Your task to perform on an android device: Show the shopping cart on walmart. Add "razer blade" to the cart on walmart Image 0: 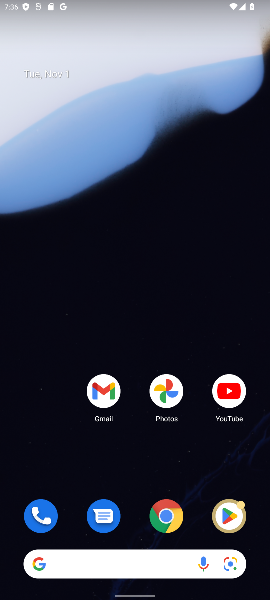
Step 0: drag from (135, 475) to (186, 13)
Your task to perform on an android device: Show the shopping cart on walmart. Add "razer blade" to the cart on walmart Image 1: 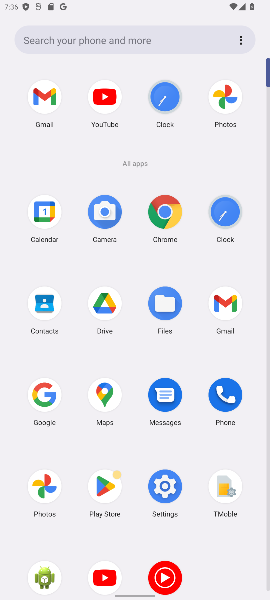
Step 1: click (166, 211)
Your task to perform on an android device: Show the shopping cart on walmart. Add "razer blade" to the cart on walmart Image 2: 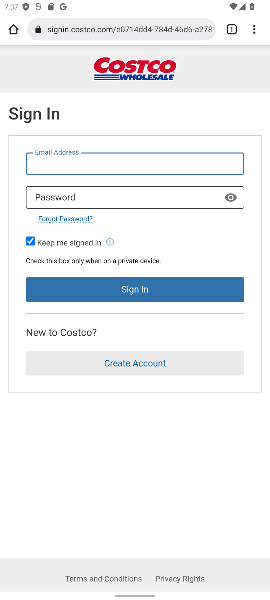
Step 2: click (75, 30)
Your task to perform on an android device: Show the shopping cart on walmart. Add "razer blade" to the cart on walmart Image 3: 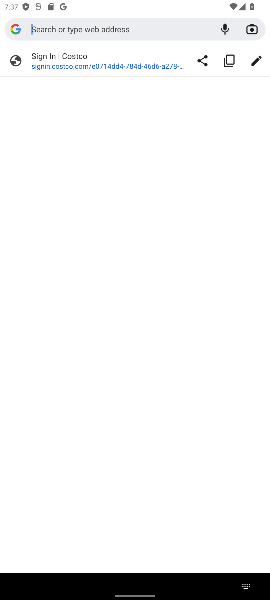
Step 3: type "walmart"
Your task to perform on an android device: Show the shopping cart on walmart. Add "razer blade" to the cart on walmart Image 4: 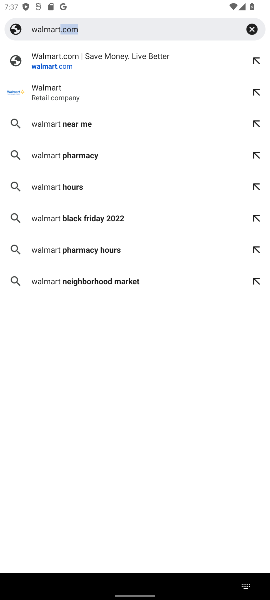
Step 4: click (79, 65)
Your task to perform on an android device: Show the shopping cart on walmart. Add "razer blade" to the cart on walmart Image 5: 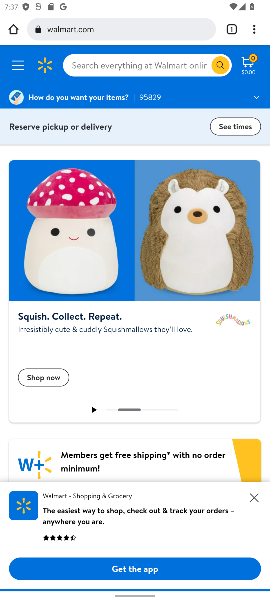
Step 5: click (86, 61)
Your task to perform on an android device: Show the shopping cart on walmart. Add "razer blade" to the cart on walmart Image 6: 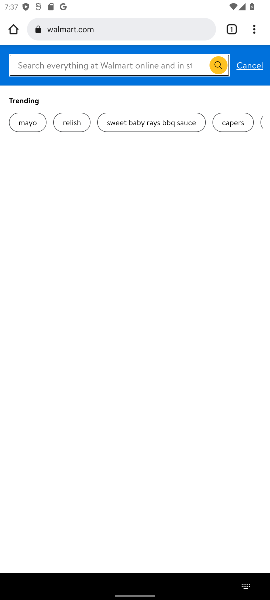
Step 6: click (51, 57)
Your task to perform on an android device: Show the shopping cart on walmart. Add "razer blade" to the cart on walmart Image 7: 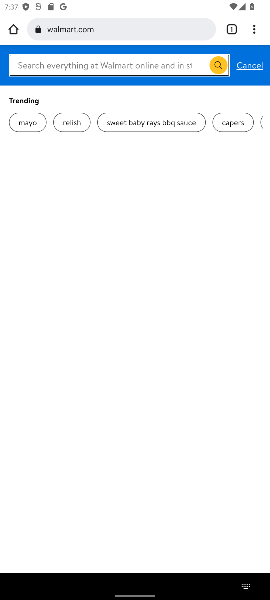
Step 7: type "razer blade"
Your task to perform on an android device: Show the shopping cart on walmart. Add "razer blade" to the cart on walmart Image 8: 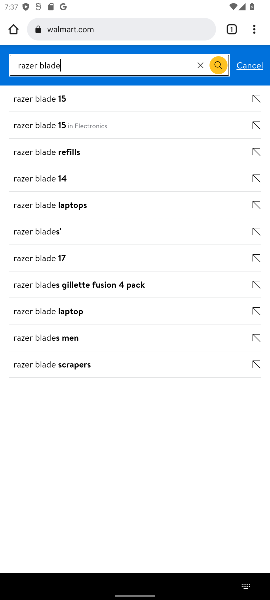
Step 8: click (64, 235)
Your task to perform on an android device: Show the shopping cart on walmart. Add "razer blade" to the cart on walmart Image 9: 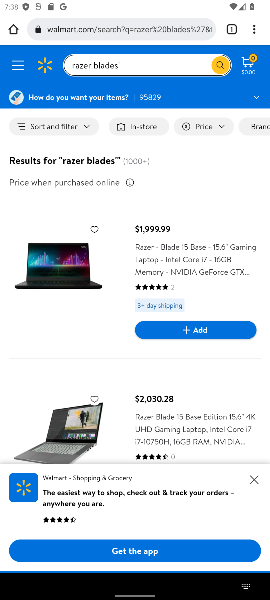
Step 9: click (163, 257)
Your task to perform on an android device: Show the shopping cart on walmart. Add "razer blade" to the cart on walmart Image 10: 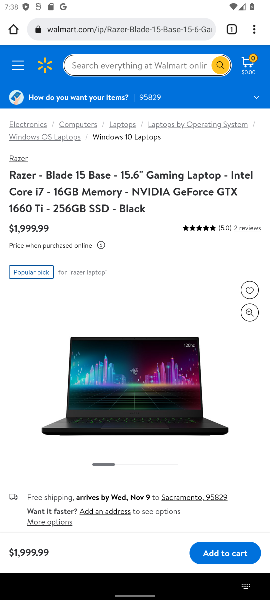
Step 10: drag from (141, 495) to (152, 142)
Your task to perform on an android device: Show the shopping cart on walmart. Add "razer blade" to the cart on walmart Image 11: 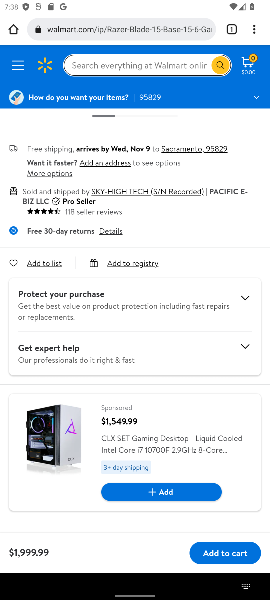
Step 11: drag from (154, 392) to (146, 164)
Your task to perform on an android device: Show the shopping cart on walmart. Add "razer blade" to the cart on walmart Image 12: 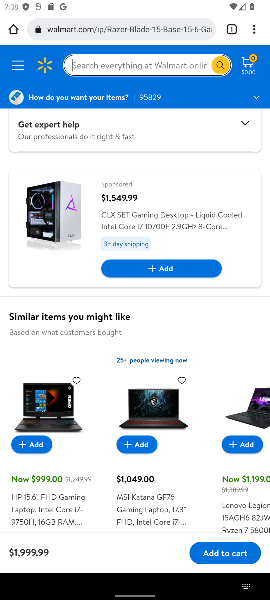
Step 12: drag from (150, 289) to (165, 468)
Your task to perform on an android device: Show the shopping cart on walmart. Add "razer blade" to the cart on walmart Image 13: 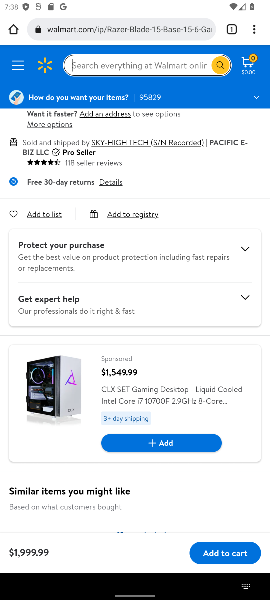
Step 13: drag from (182, 258) to (193, 483)
Your task to perform on an android device: Show the shopping cart on walmart. Add "razer blade" to the cart on walmart Image 14: 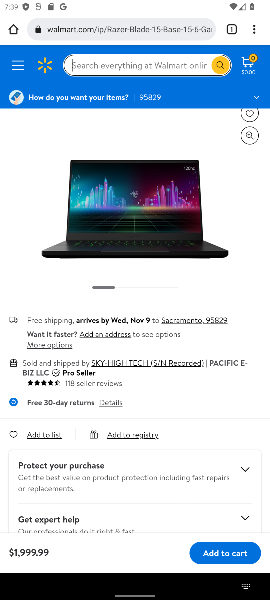
Step 14: drag from (144, 188) to (145, 478)
Your task to perform on an android device: Show the shopping cart on walmart. Add "razer blade" to the cart on walmart Image 15: 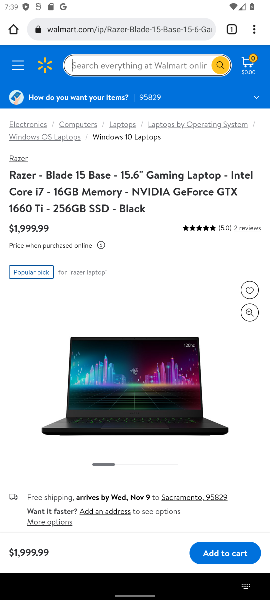
Step 15: drag from (145, 482) to (155, 121)
Your task to perform on an android device: Show the shopping cart on walmart. Add "razer blade" to the cart on walmart Image 16: 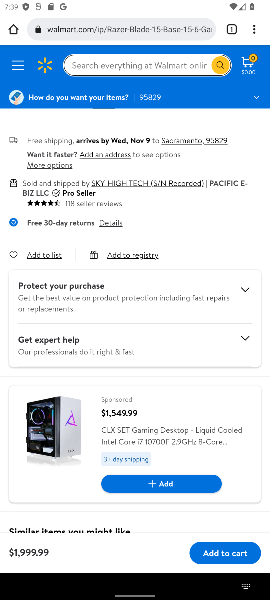
Step 16: drag from (149, 368) to (154, 103)
Your task to perform on an android device: Show the shopping cart on walmart. Add "razer blade" to the cart on walmart Image 17: 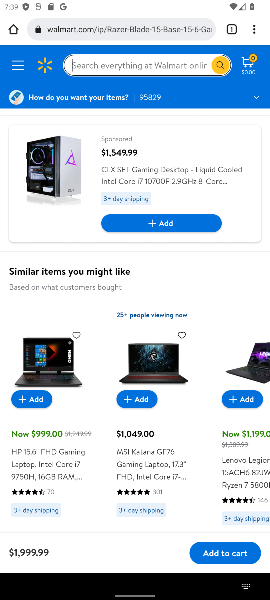
Step 17: drag from (118, 290) to (141, 86)
Your task to perform on an android device: Show the shopping cart on walmart. Add "razer blade" to the cart on walmart Image 18: 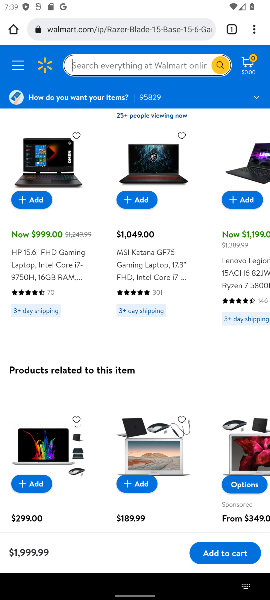
Step 18: drag from (177, 496) to (195, 82)
Your task to perform on an android device: Show the shopping cart on walmart. Add "razer blade" to the cart on walmart Image 19: 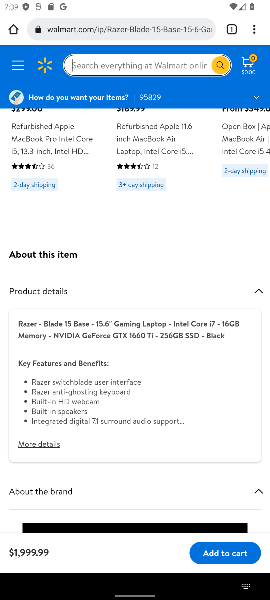
Step 19: drag from (150, 386) to (162, 114)
Your task to perform on an android device: Show the shopping cart on walmart. Add "razer blade" to the cart on walmart Image 20: 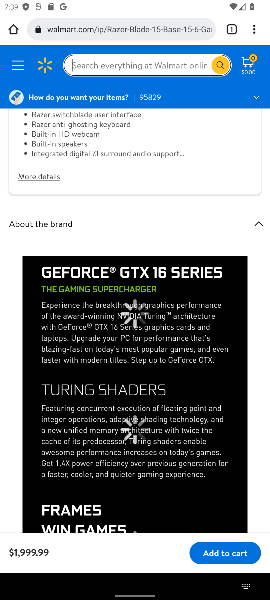
Step 20: drag from (138, 173) to (134, 588)
Your task to perform on an android device: Show the shopping cart on walmart. Add "razer blade" to the cart on walmart Image 21: 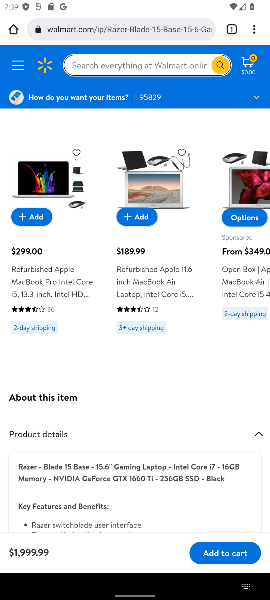
Step 21: drag from (123, 178) to (123, 538)
Your task to perform on an android device: Show the shopping cart on walmart. Add "razer blade" to the cart on walmart Image 22: 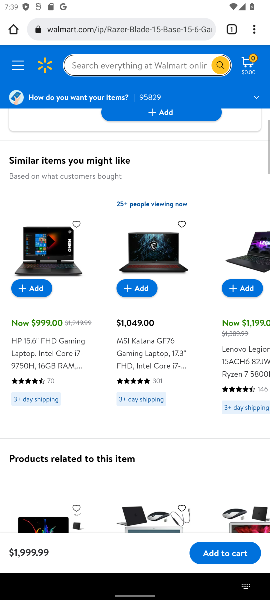
Step 22: click (223, 553)
Your task to perform on an android device: Show the shopping cart on walmart. Add "razer blade" to the cart on walmart Image 23: 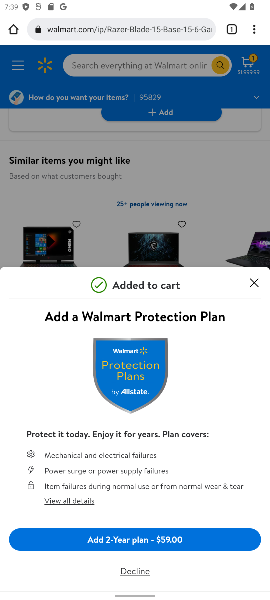
Step 23: click (258, 280)
Your task to perform on an android device: Show the shopping cart on walmart. Add "razer blade" to the cart on walmart Image 24: 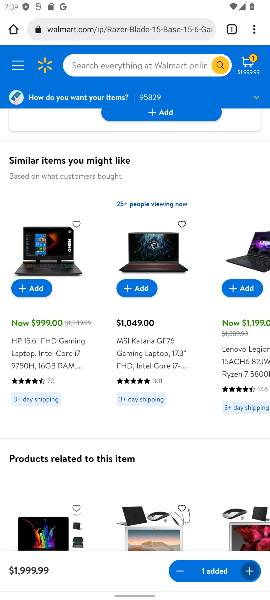
Step 24: click (248, 66)
Your task to perform on an android device: Show the shopping cart on walmart. Add "razer blade" to the cart on walmart Image 25: 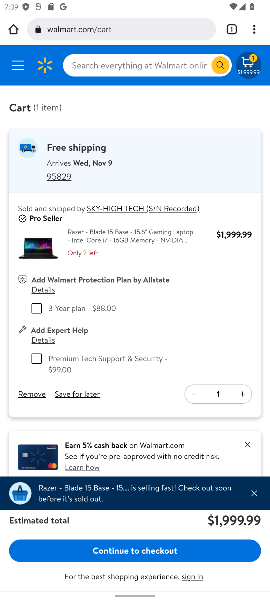
Step 25: task complete